Your task to perform on an android device: Open CNN.com Image 0: 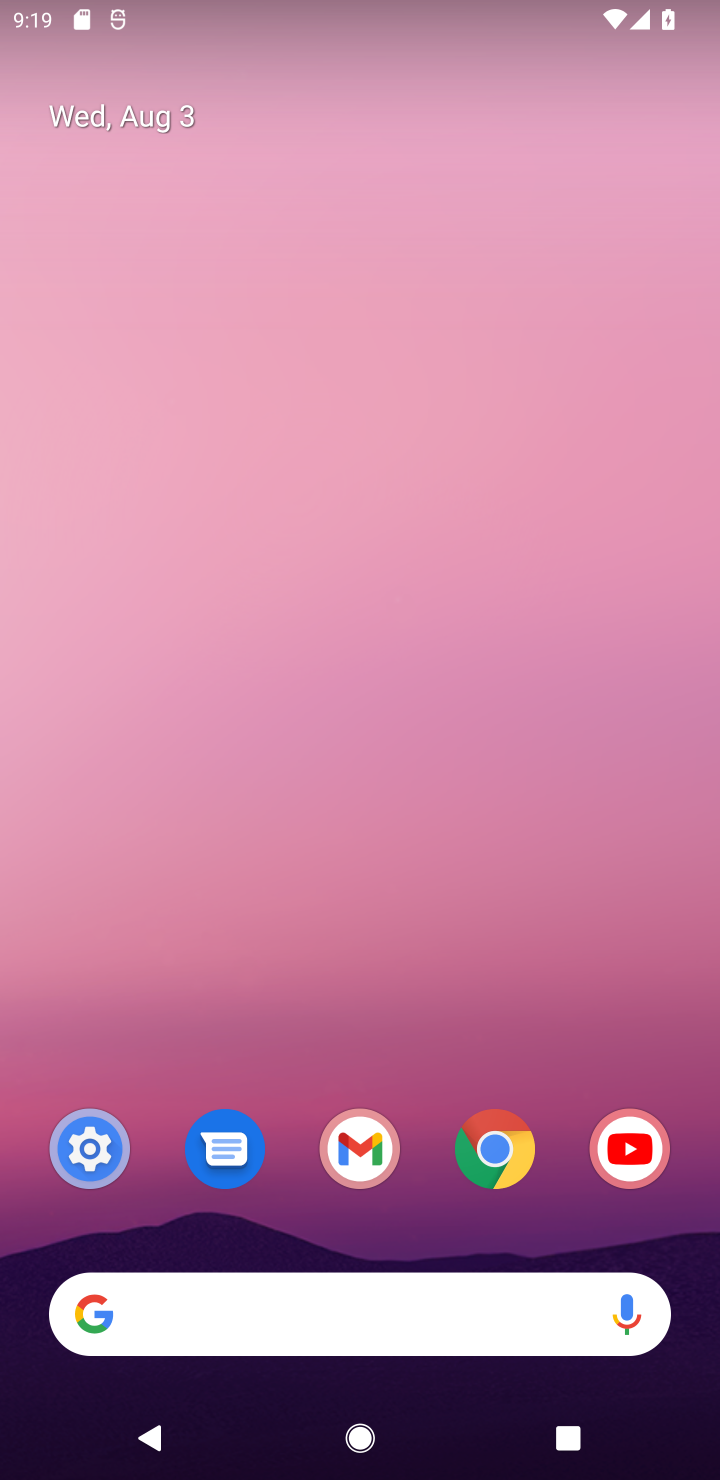
Step 0: click (513, 1152)
Your task to perform on an android device: Open CNN.com Image 1: 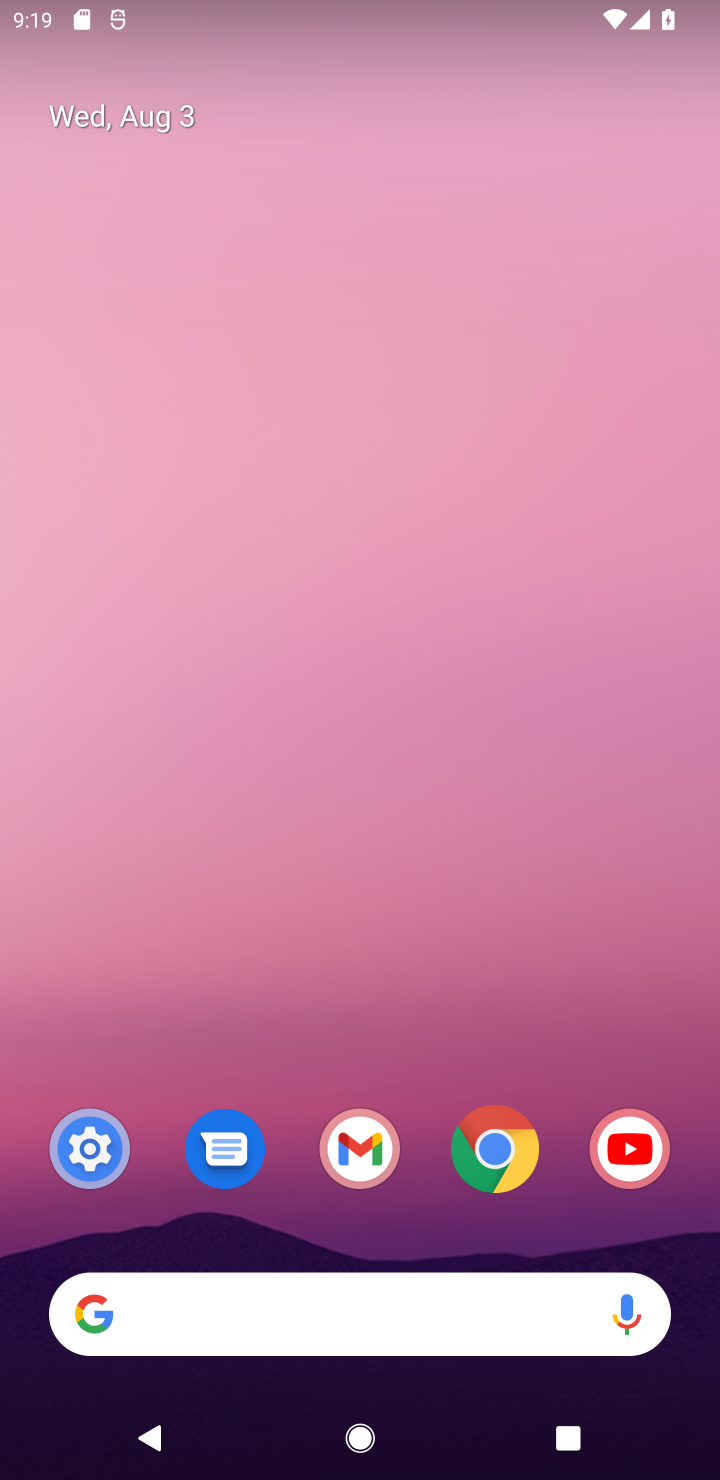
Step 1: click (489, 1178)
Your task to perform on an android device: Open CNN.com Image 2: 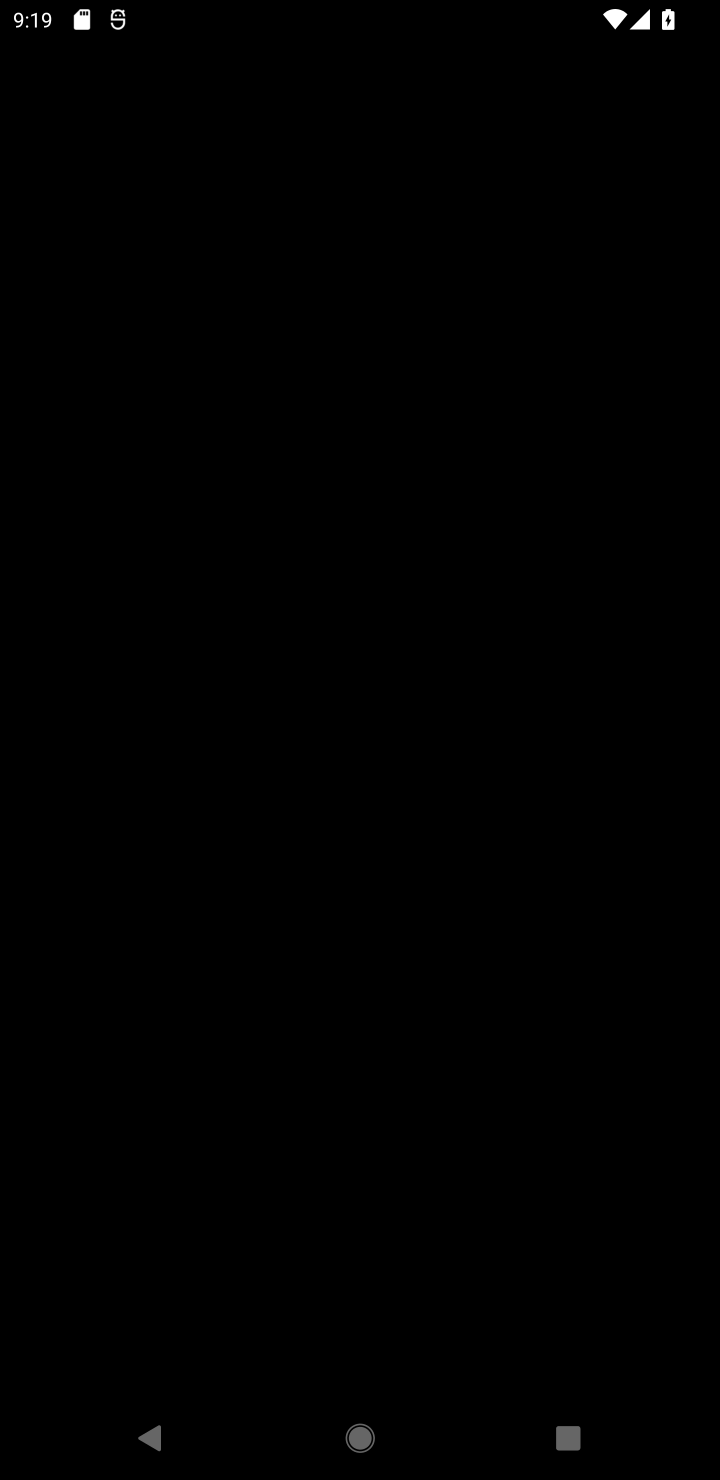
Step 2: press back button
Your task to perform on an android device: Open CNN.com Image 3: 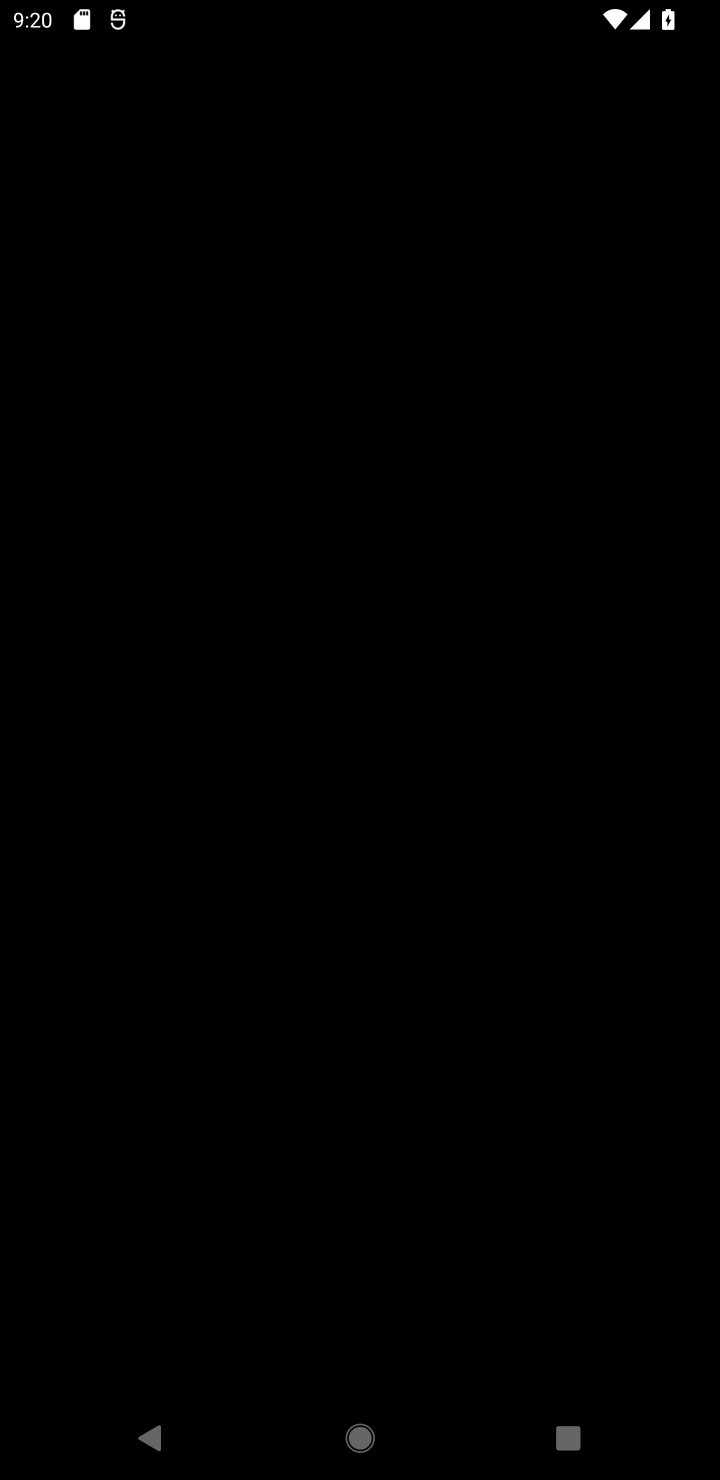
Step 3: press home button
Your task to perform on an android device: Open CNN.com Image 4: 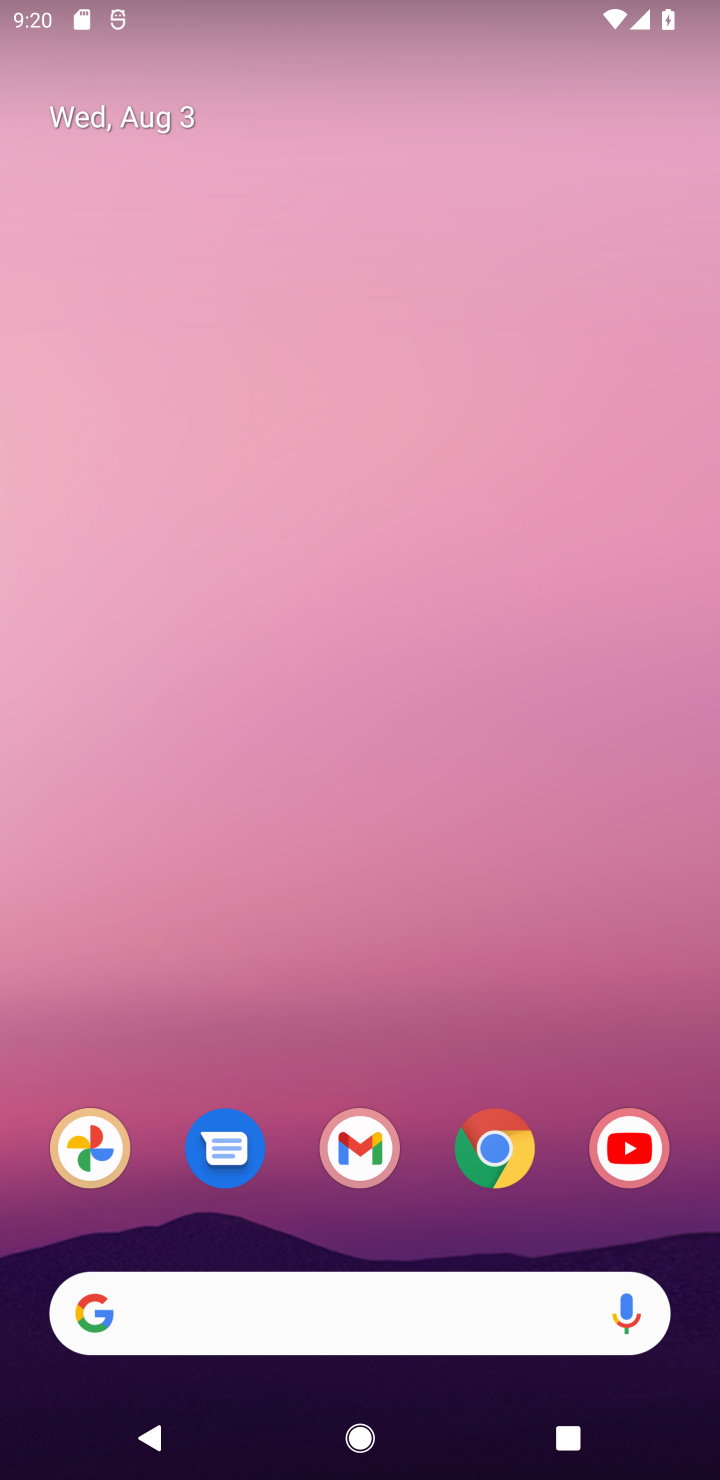
Step 4: press home button
Your task to perform on an android device: Open CNN.com Image 5: 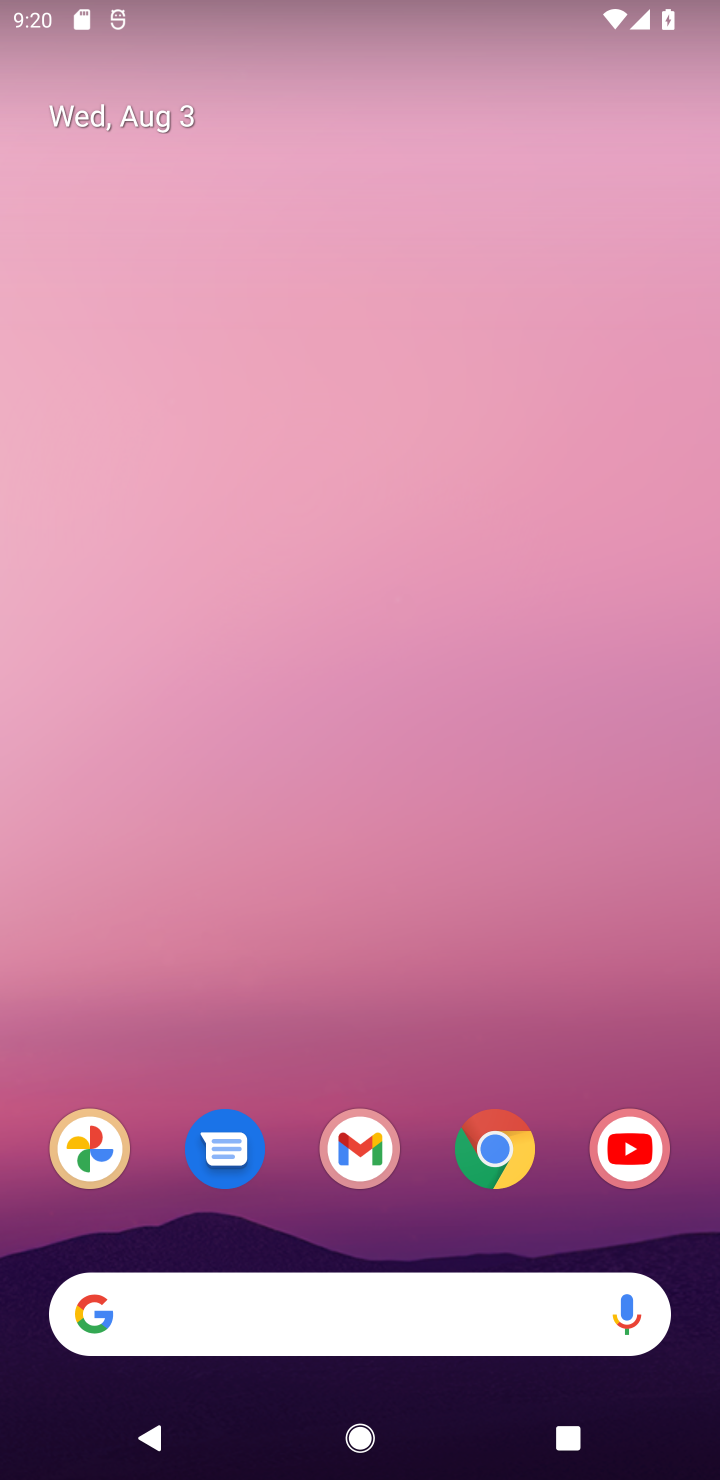
Step 5: click (488, 1158)
Your task to perform on an android device: Open CNN.com Image 6: 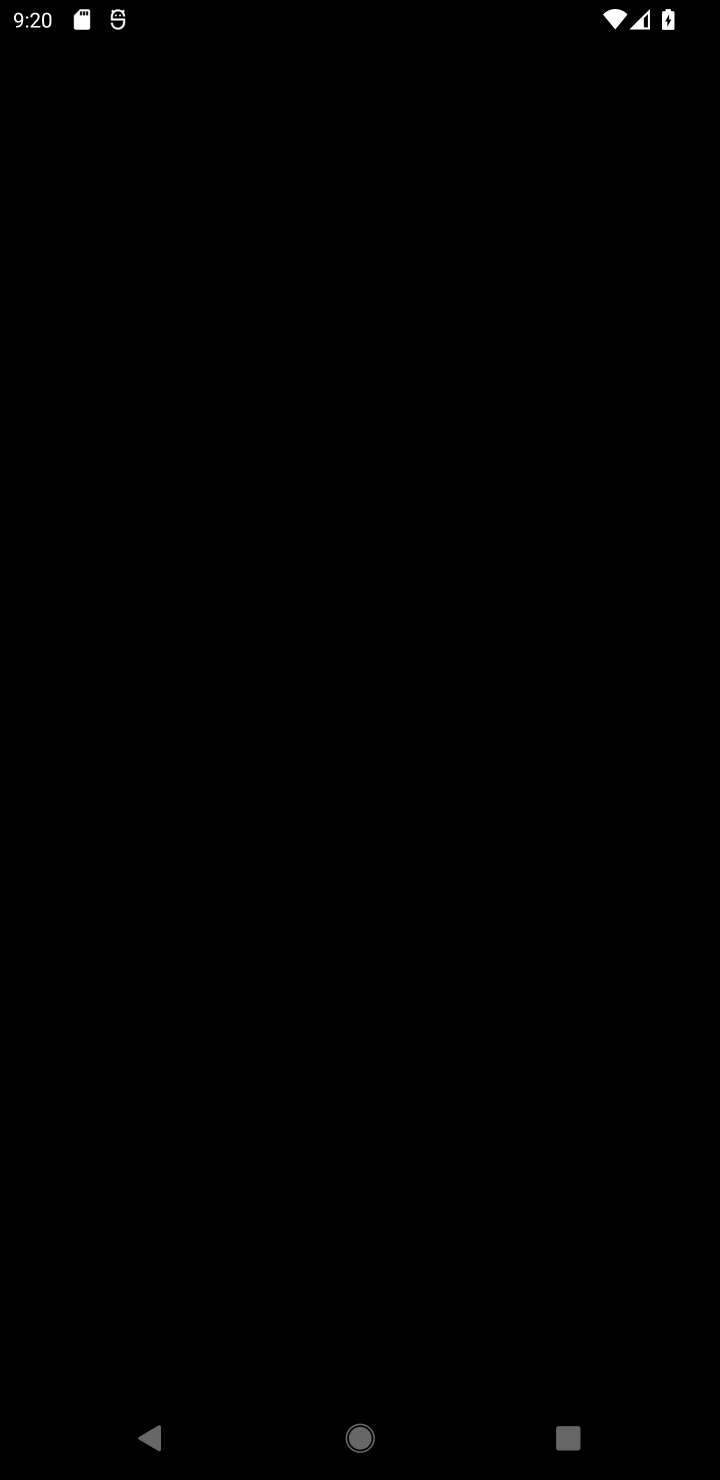
Step 6: task complete